Your task to perform on an android device: Open the stopwatch Image 0: 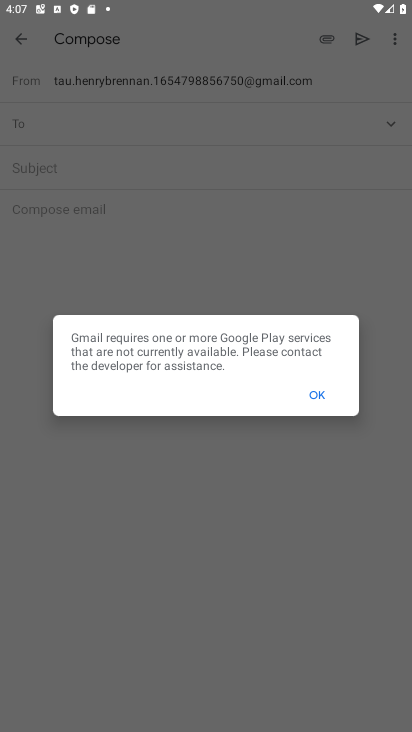
Step 0: press home button
Your task to perform on an android device: Open the stopwatch Image 1: 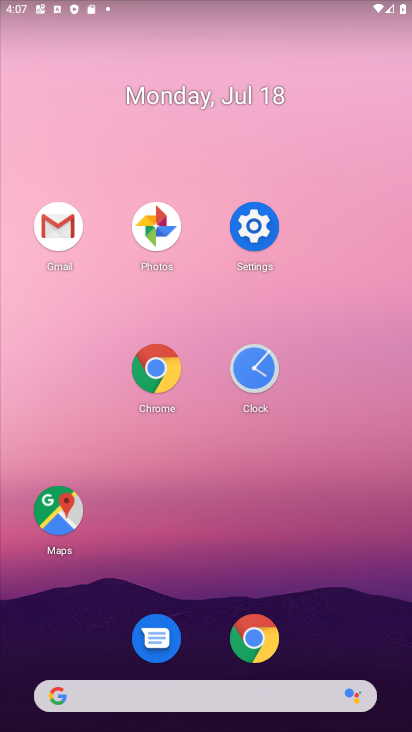
Step 1: click (261, 362)
Your task to perform on an android device: Open the stopwatch Image 2: 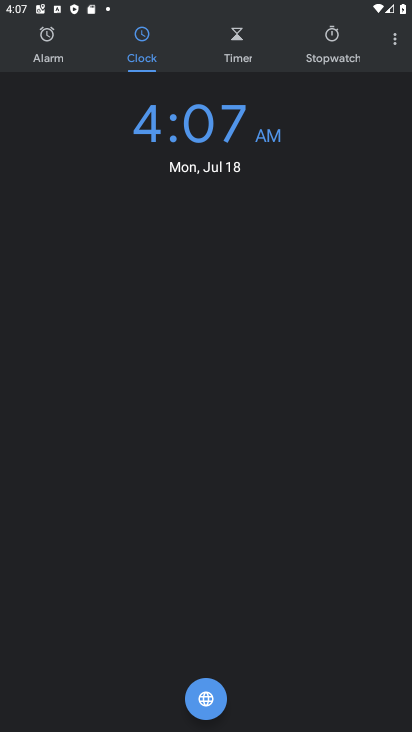
Step 2: click (344, 36)
Your task to perform on an android device: Open the stopwatch Image 3: 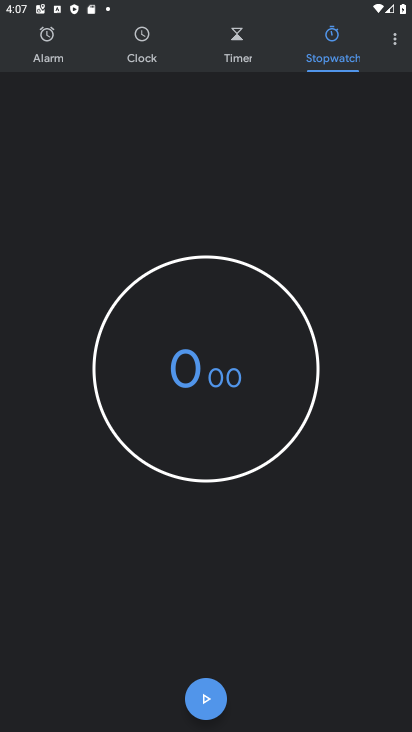
Step 3: task complete